Your task to perform on an android device: open app "Google Duo" (install if not already installed) Image 0: 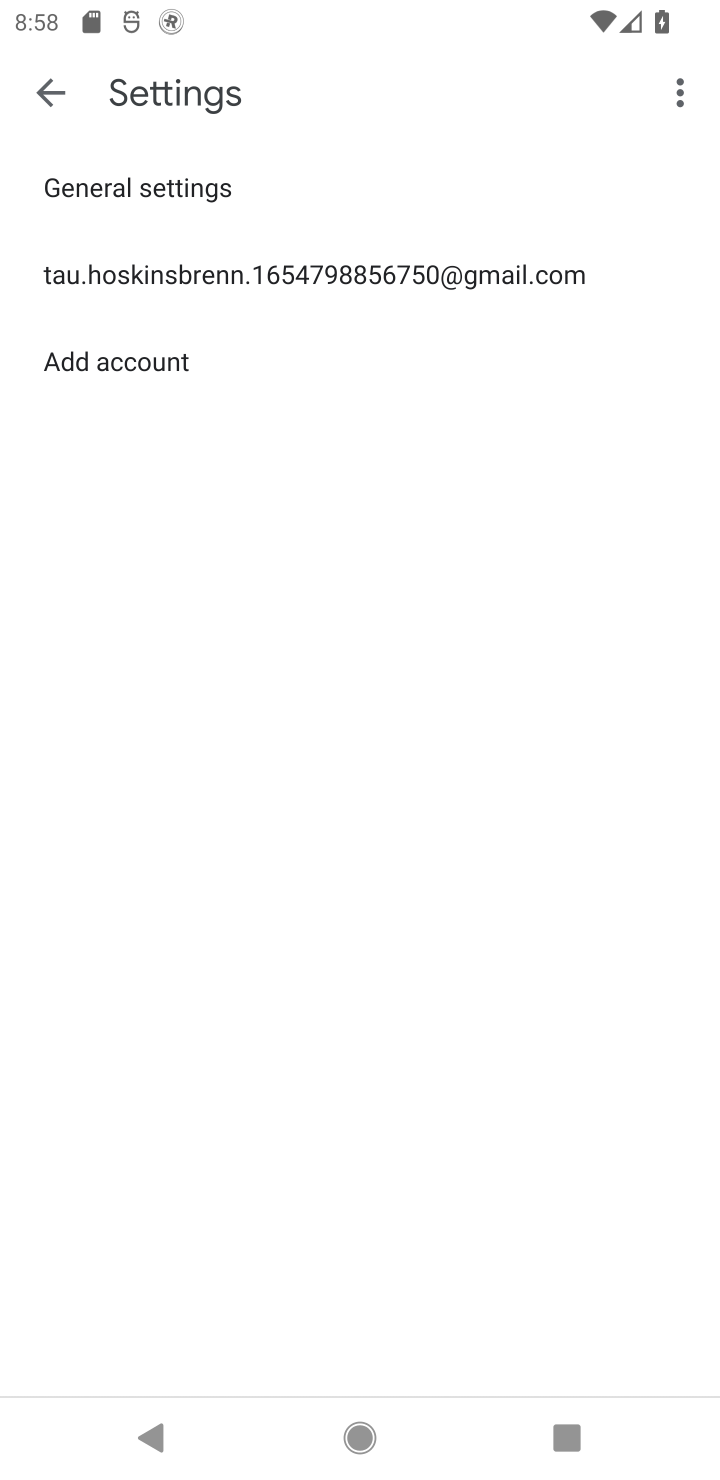
Step 0: press home button
Your task to perform on an android device: open app "Google Duo" (install if not already installed) Image 1: 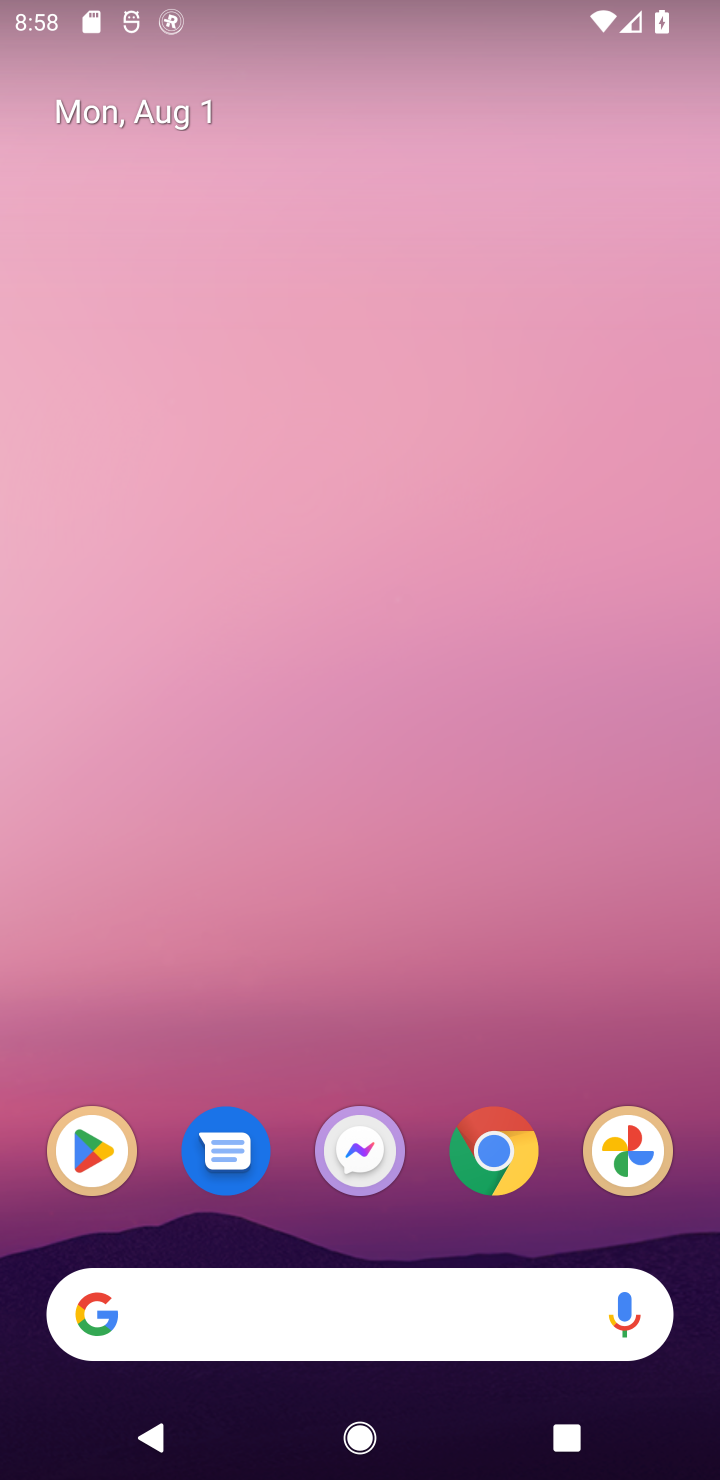
Step 1: click (93, 1148)
Your task to perform on an android device: open app "Google Duo" (install if not already installed) Image 2: 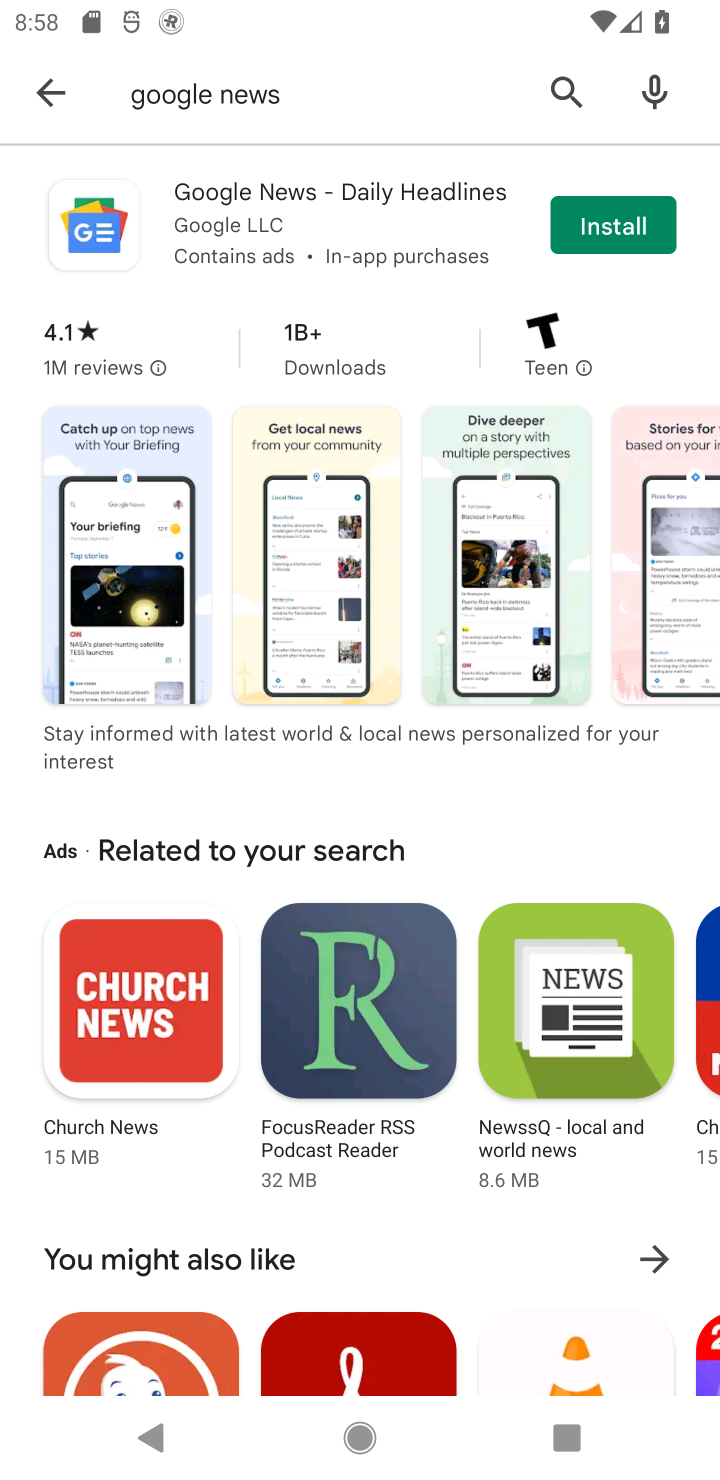
Step 2: click (559, 86)
Your task to perform on an android device: open app "Google Duo" (install if not already installed) Image 3: 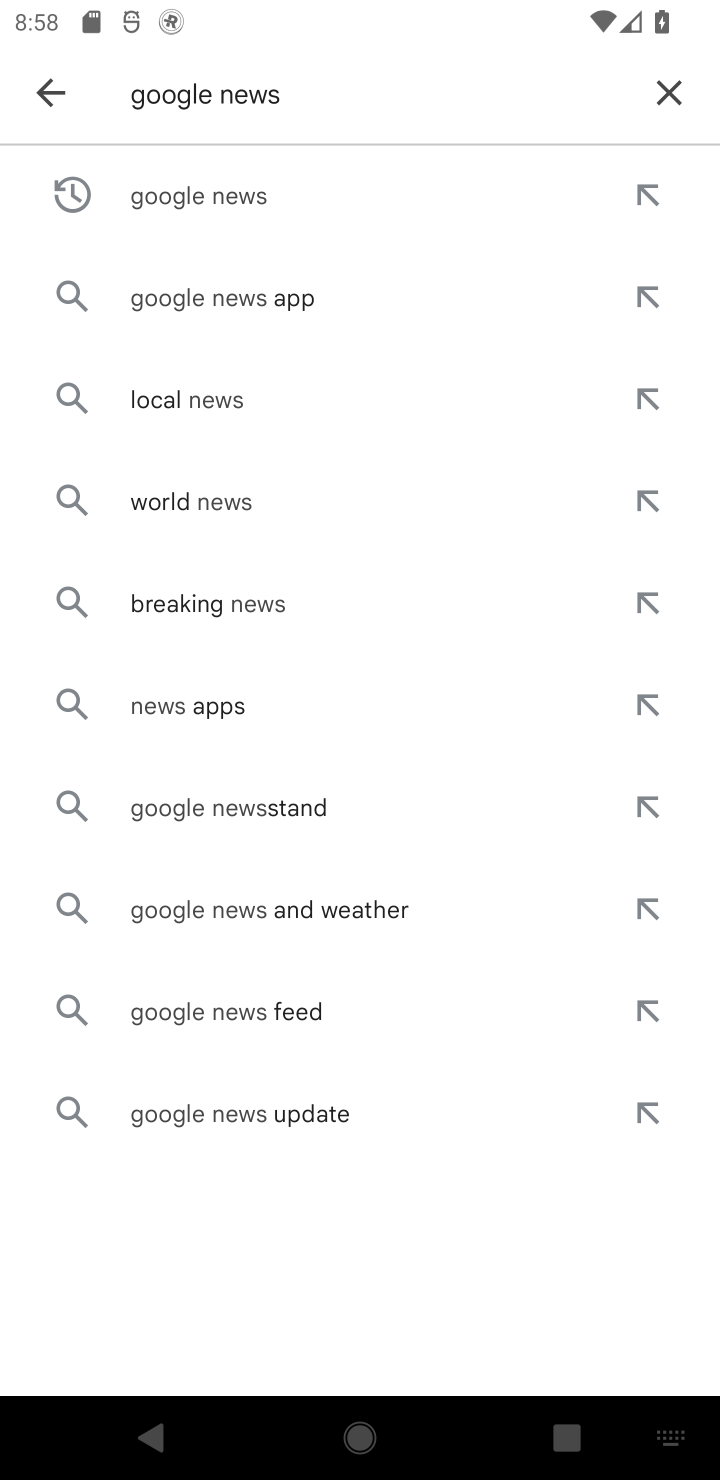
Step 3: click (660, 99)
Your task to perform on an android device: open app "Google Duo" (install if not already installed) Image 4: 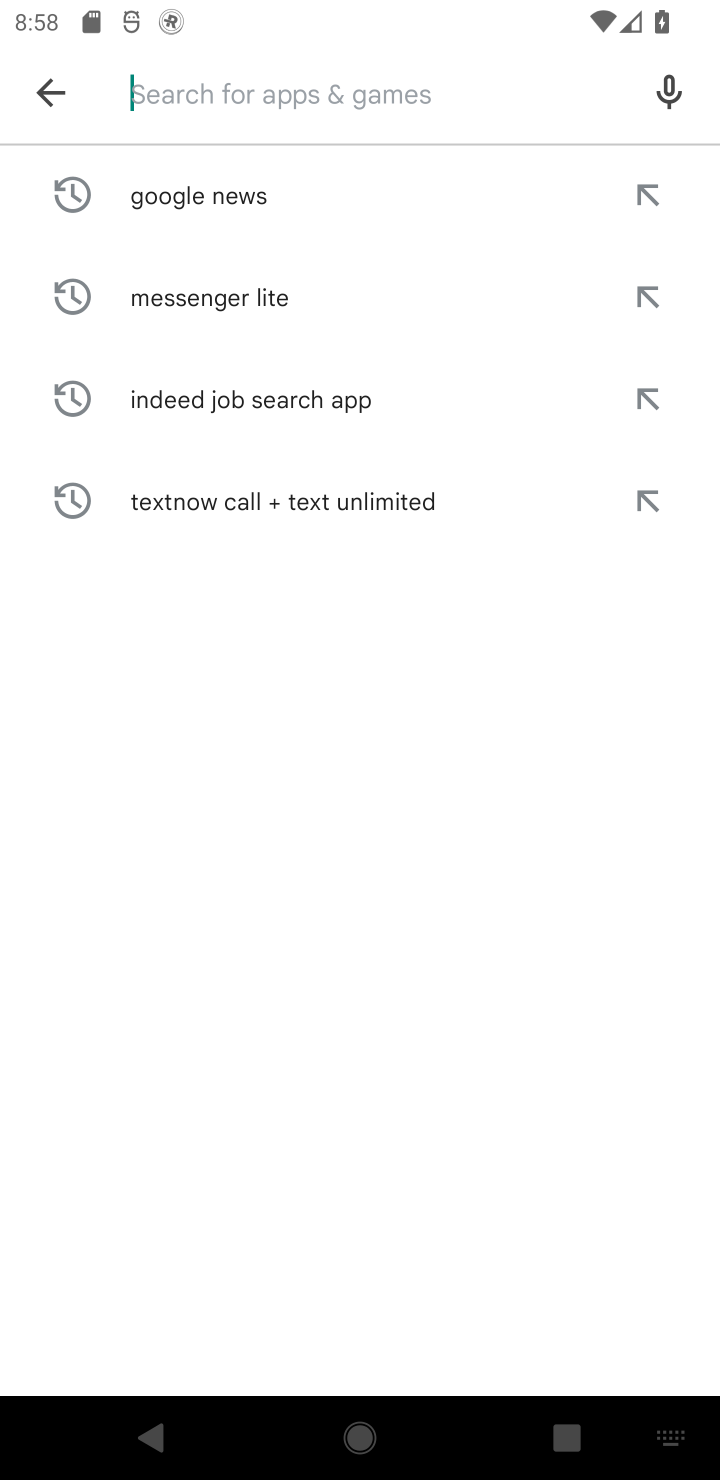
Step 4: type "Google Duo"
Your task to perform on an android device: open app "Google Duo" (install if not already installed) Image 5: 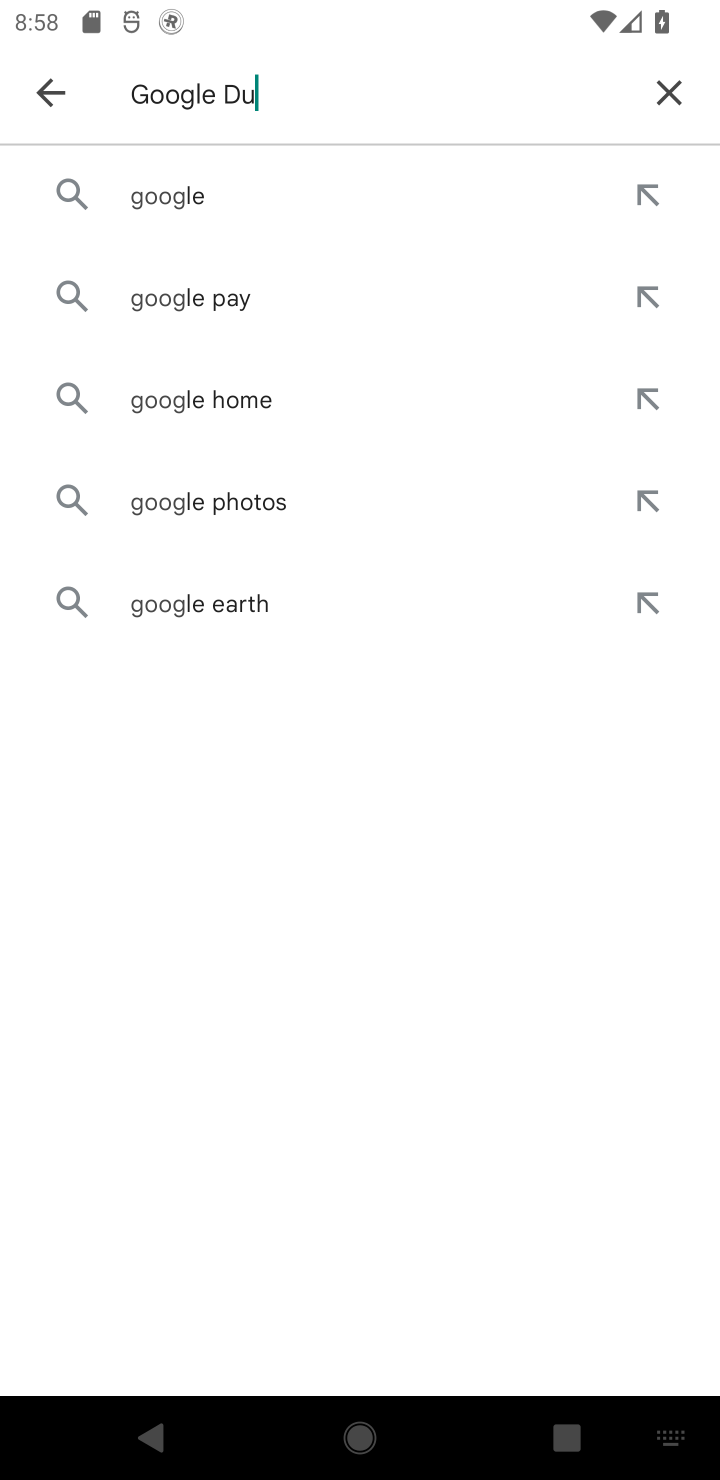
Step 5: type ""
Your task to perform on an android device: open app "Google Duo" (install if not already installed) Image 6: 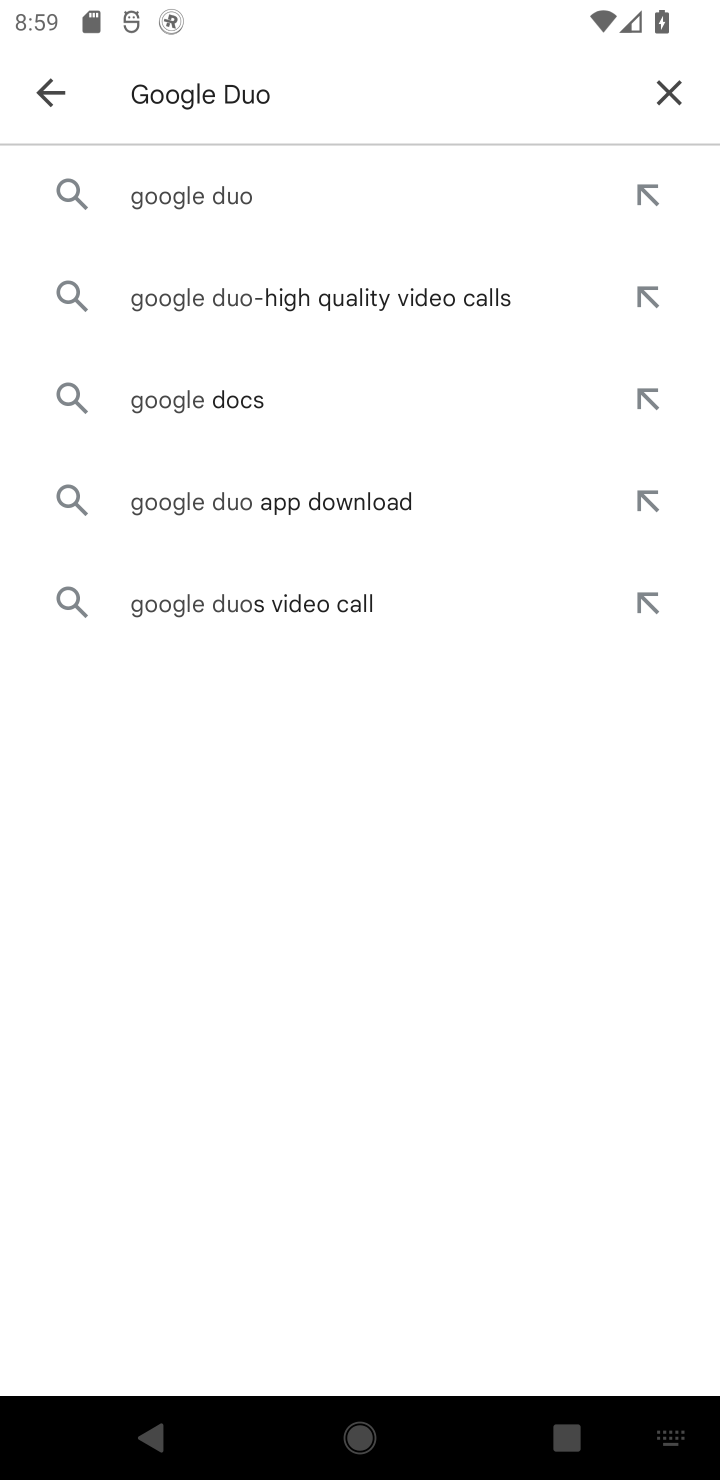
Step 6: click (189, 208)
Your task to perform on an android device: open app "Google Duo" (install if not already installed) Image 7: 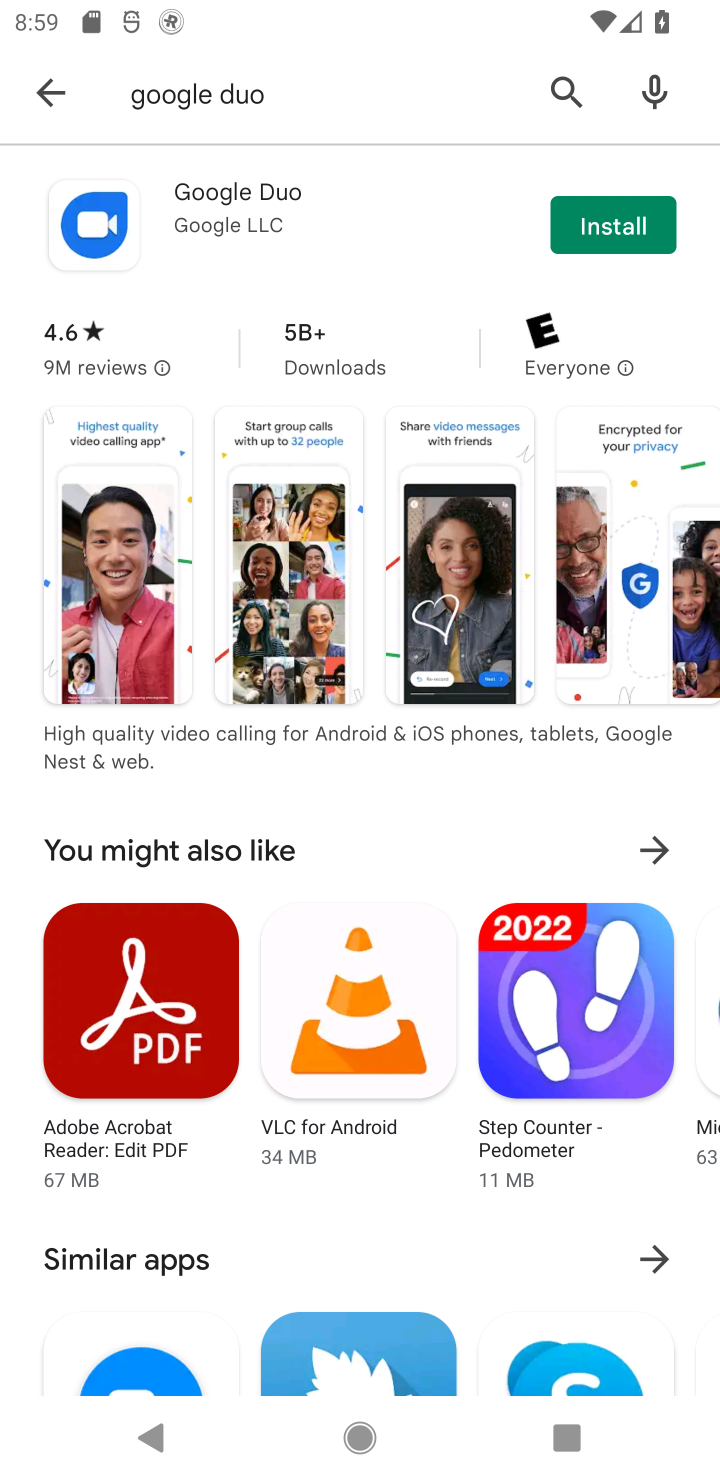
Step 7: click (575, 224)
Your task to perform on an android device: open app "Google Duo" (install if not already installed) Image 8: 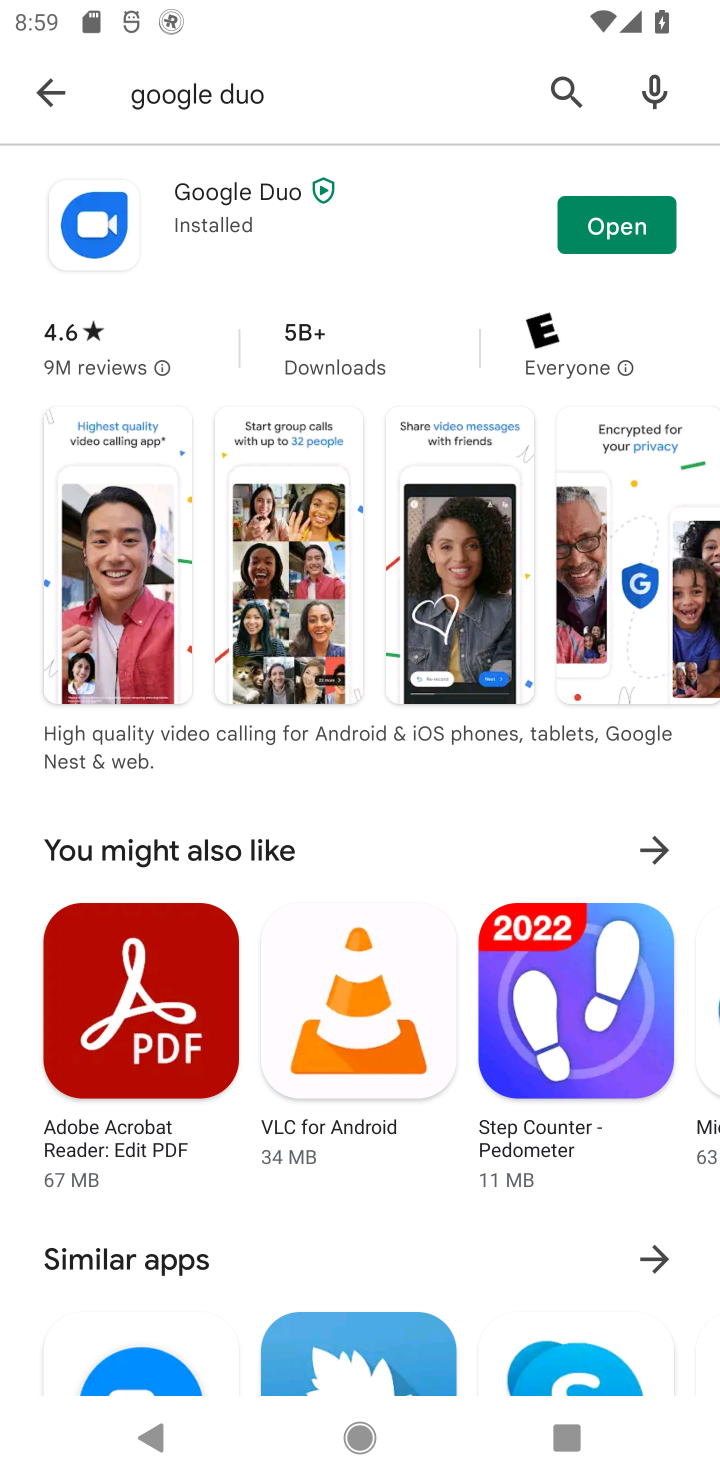
Step 8: click (596, 229)
Your task to perform on an android device: open app "Google Duo" (install if not already installed) Image 9: 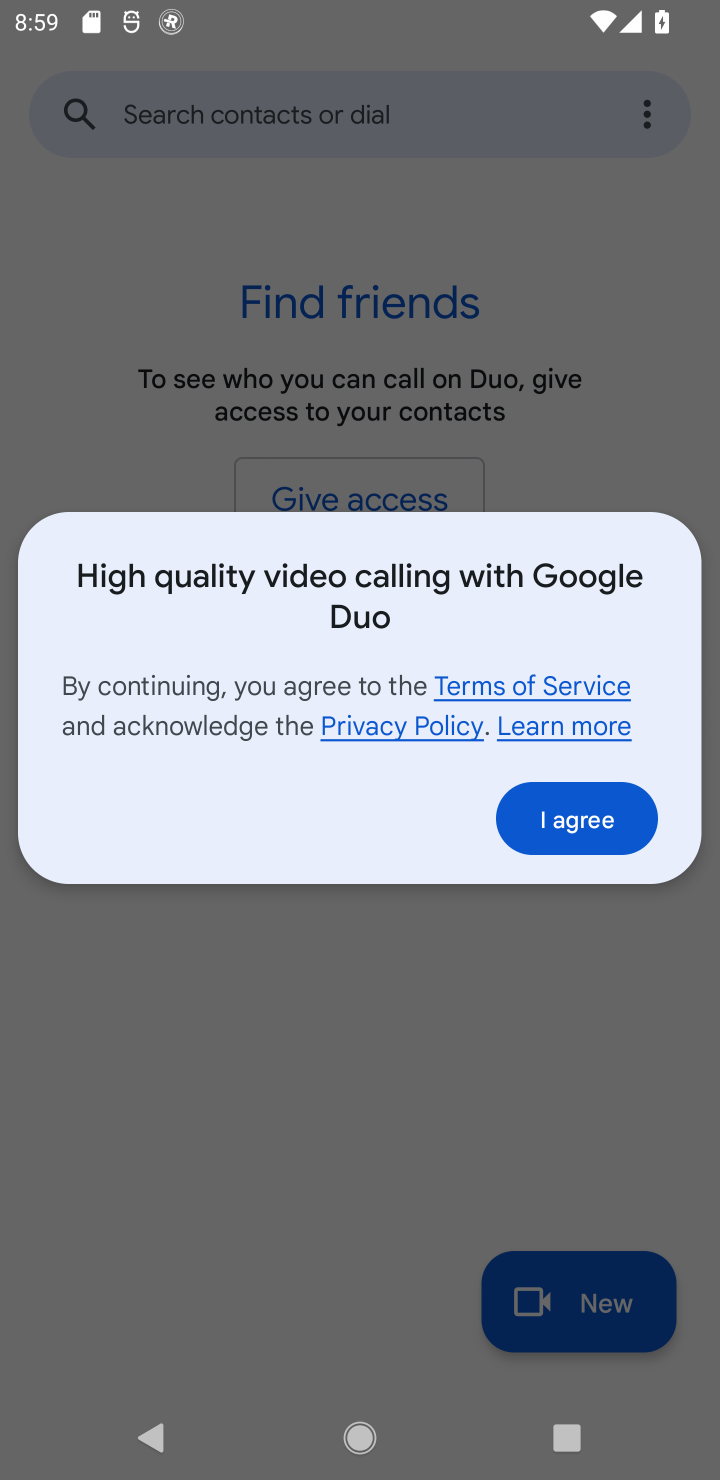
Step 9: task complete